Your task to perform on an android device: toggle javascript in the chrome app Image 0: 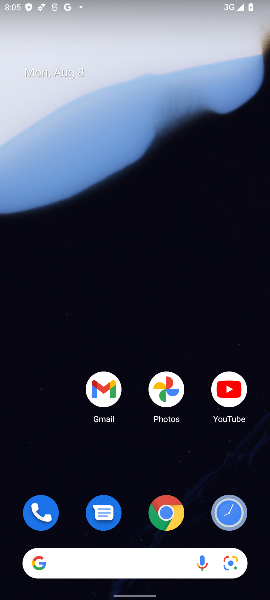
Step 0: click (166, 514)
Your task to perform on an android device: toggle javascript in the chrome app Image 1: 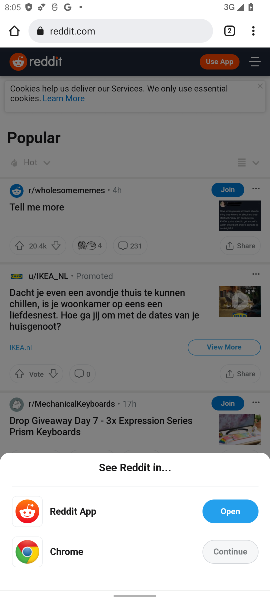
Step 1: click (259, 31)
Your task to perform on an android device: toggle javascript in the chrome app Image 2: 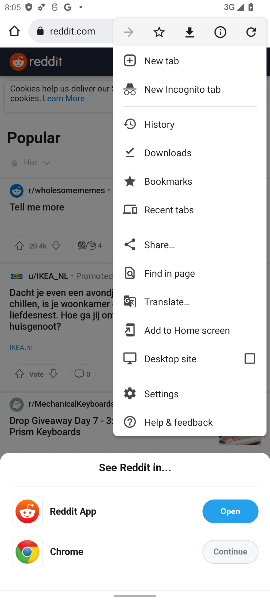
Step 2: click (178, 390)
Your task to perform on an android device: toggle javascript in the chrome app Image 3: 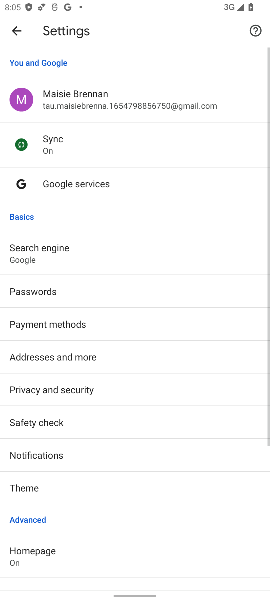
Step 3: drag from (123, 536) to (196, 49)
Your task to perform on an android device: toggle javascript in the chrome app Image 4: 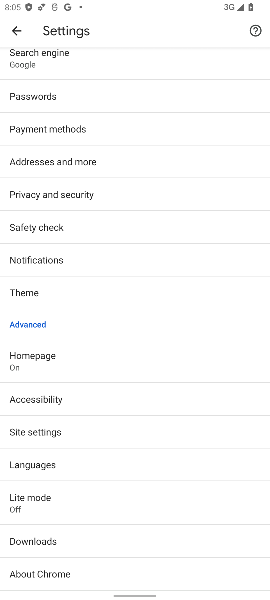
Step 4: click (80, 427)
Your task to perform on an android device: toggle javascript in the chrome app Image 5: 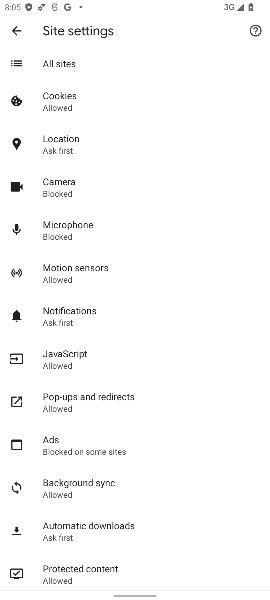
Step 5: click (86, 362)
Your task to perform on an android device: toggle javascript in the chrome app Image 6: 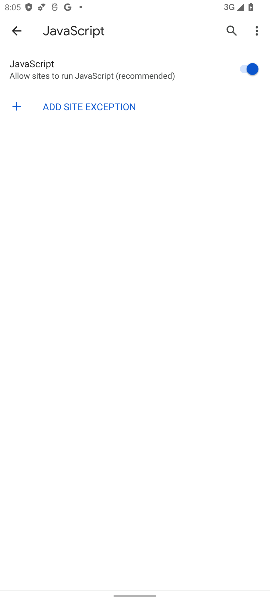
Step 6: click (250, 71)
Your task to perform on an android device: toggle javascript in the chrome app Image 7: 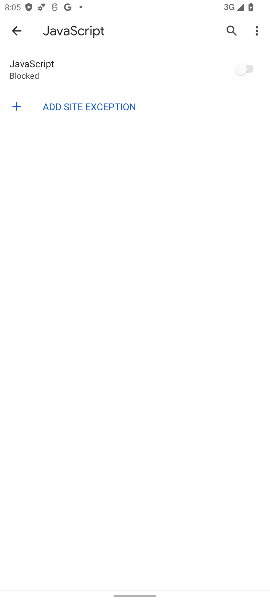
Step 7: task complete